Your task to perform on an android device: change text size in settings app Image 0: 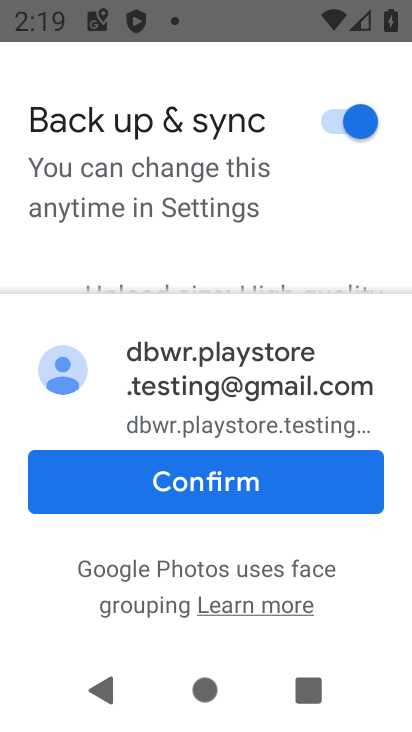
Step 0: press back button
Your task to perform on an android device: change text size in settings app Image 1: 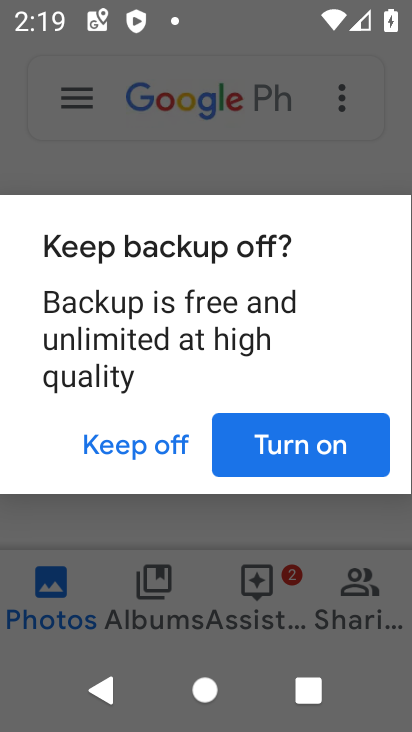
Step 1: press back button
Your task to perform on an android device: change text size in settings app Image 2: 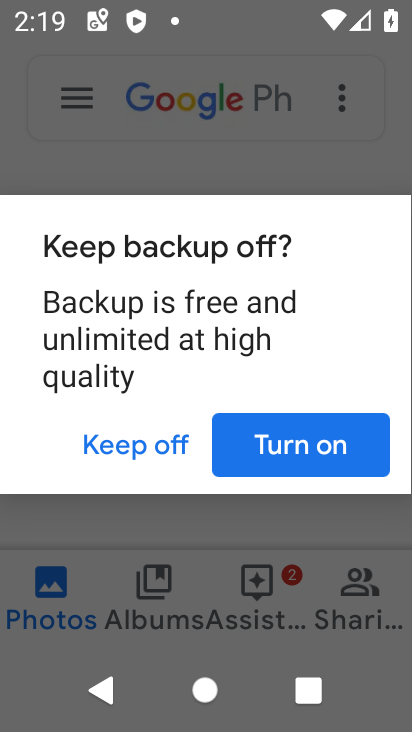
Step 2: press home button
Your task to perform on an android device: change text size in settings app Image 3: 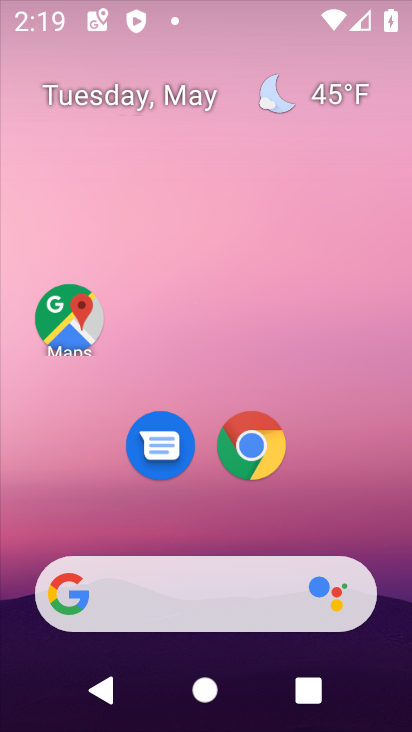
Step 3: drag from (160, 579) to (296, 3)
Your task to perform on an android device: change text size in settings app Image 4: 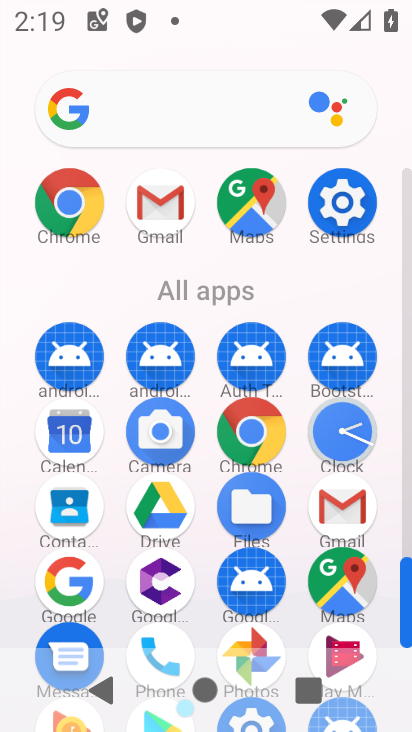
Step 4: click (351, 197)
Your task to perform on an android device: change text size in settings app Image 5: 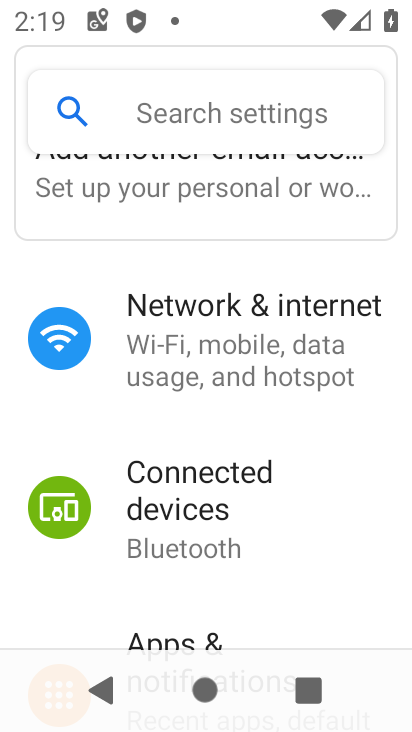
Step 5: click (172, 121)
Your task to perform on an android device: change text size in settings app Image 6: 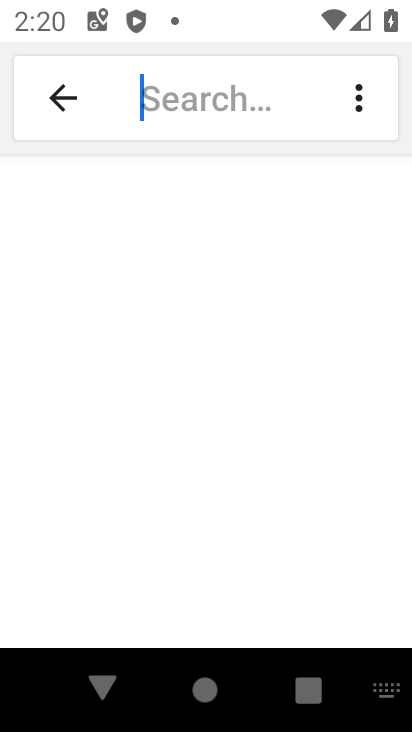
Step 6: type "text size"
Your task to perform on an android device: change text size in settings app Image 7: 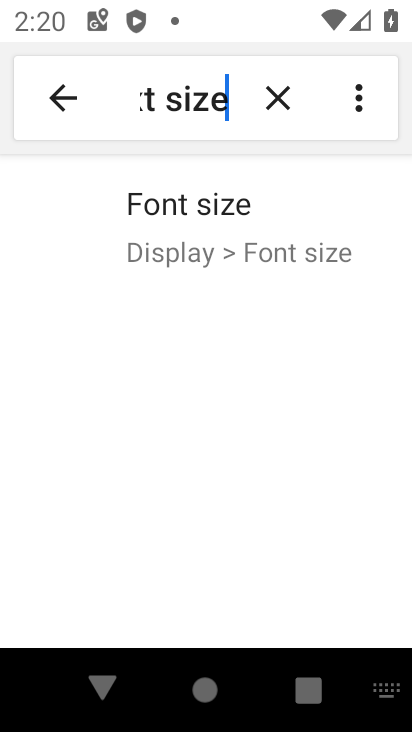
Step 7: click (215, 215)
Your task to perform on an android device: change text size in settings app Image 8: 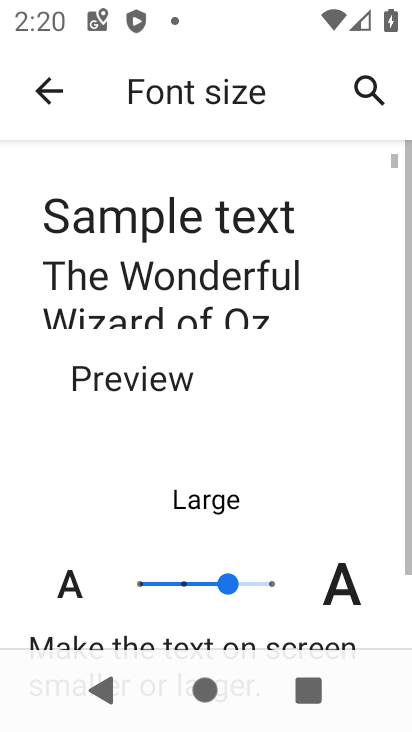
Step 8: task complete